Your task to perform on an android device: Google the capital of Uruguay Image 0: 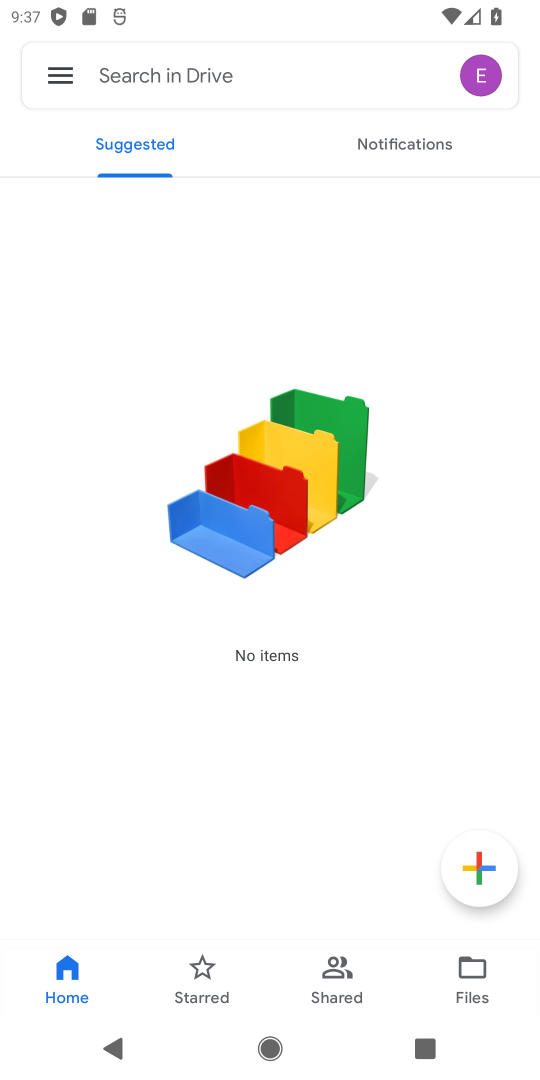
Step 0: press home button
Your task to perform on an android device: Google the capital of Uruguay Image 1: 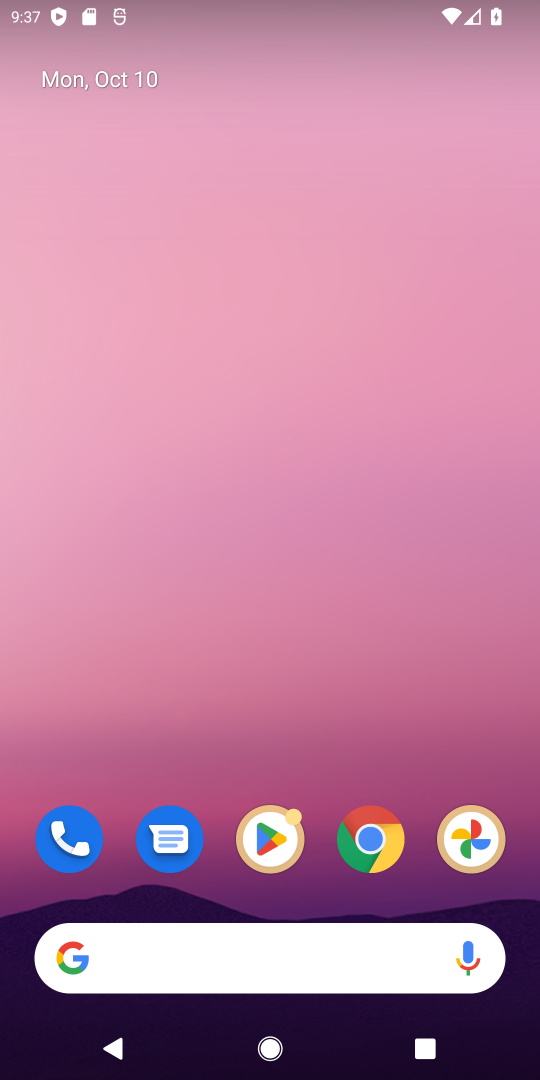
Step 1: drag from (321, 780) to (334, 97)
Your task to perform on an android device: Google the capital of Uruguay Image 2: 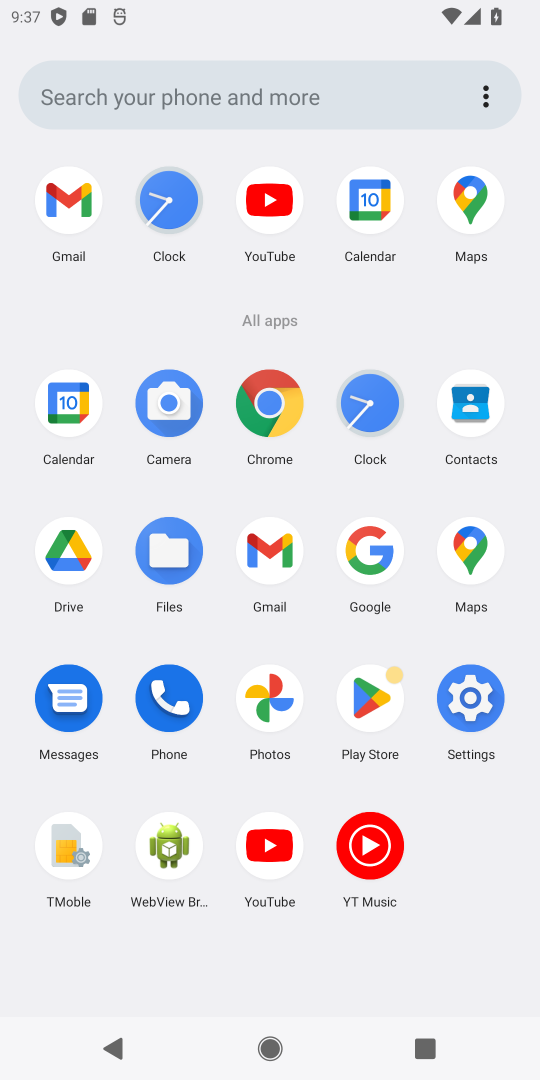
Step 2: click (373, 552)
Your task to perform on an android device: Google the capital of Uruguay Image 3: 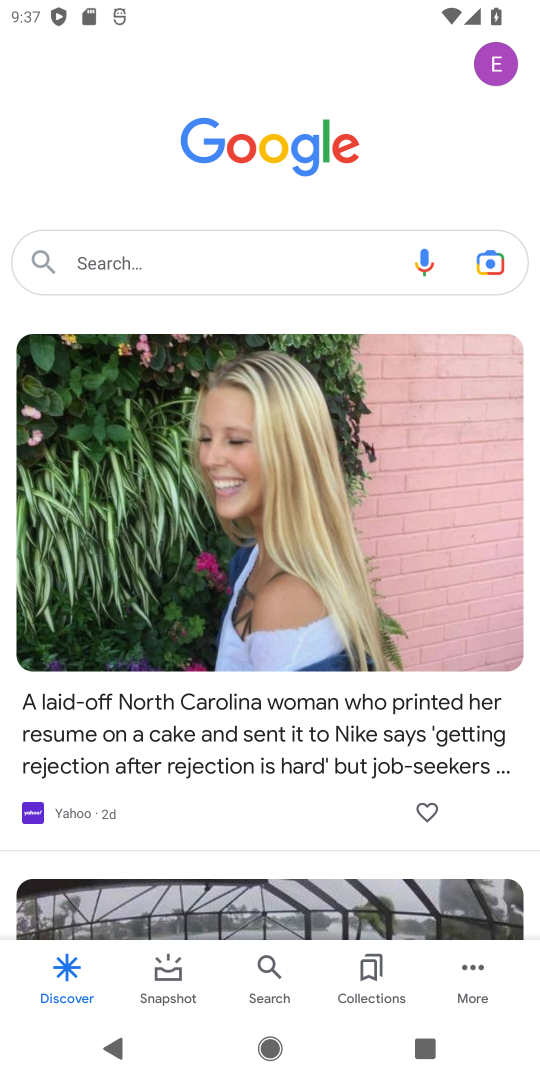
Step 3: click (337, 242)
Your task to perform on an android device: Google the capital of Uruguay Image 4: 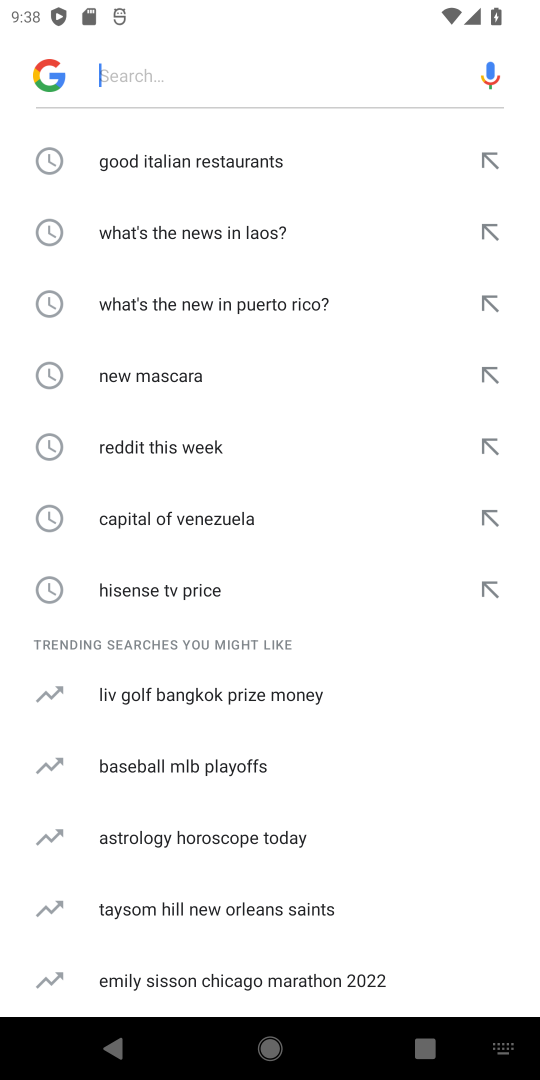
Step 4: type "the capital of Uruguay"
Your task to perform on an android device: Google the capital of Uruguay Image 5: 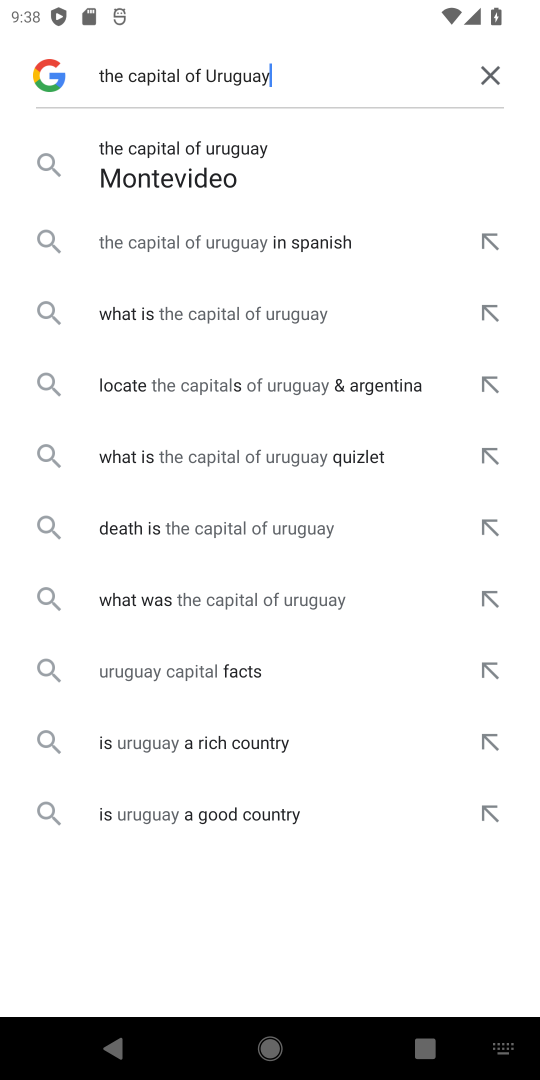
Step 5: press enter
Your task to perform on an android device: Google the capital of Uruguay Image 6: 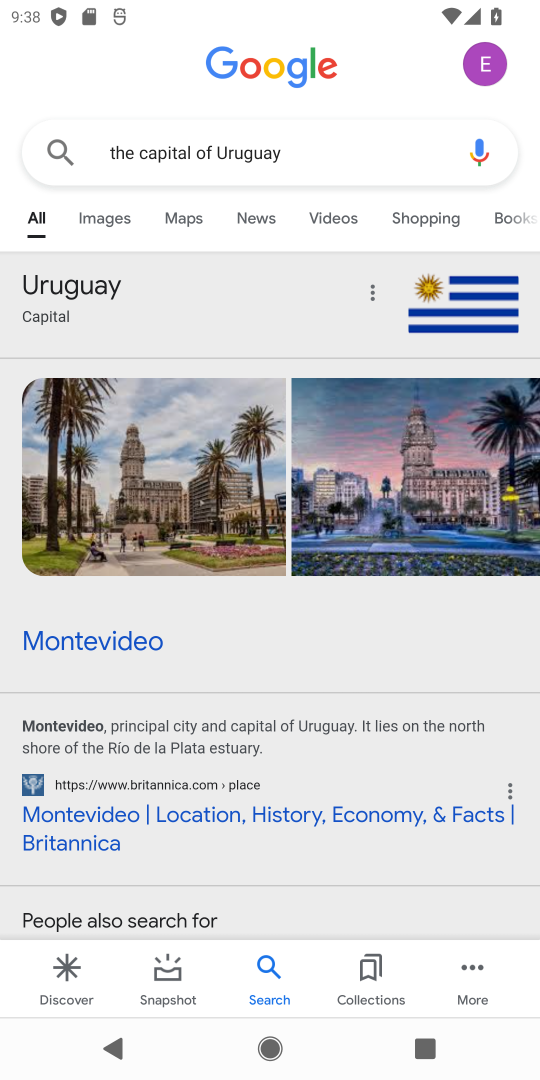
Step 6: task complete